Your task to perform on an android device: What's on my calendar today? Image 0: 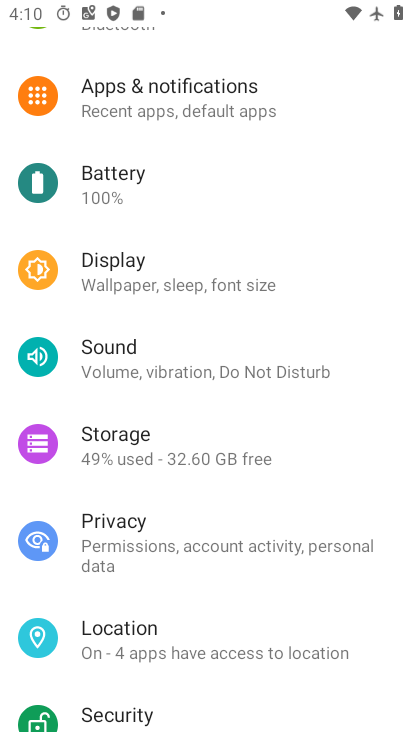
Step 0: press home button
Your task to perform on an android device: What's on my calendar today? Image 1: 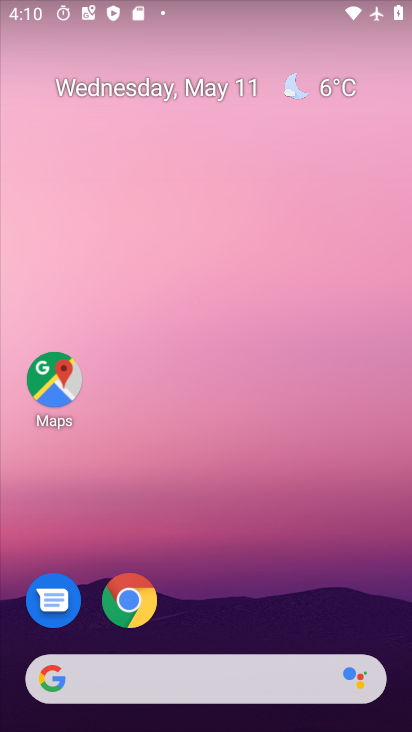
Step 1: drag from (243, 641) to (134, 152)
Your task to perform on an android device: What's on my calendar today? Image 2: 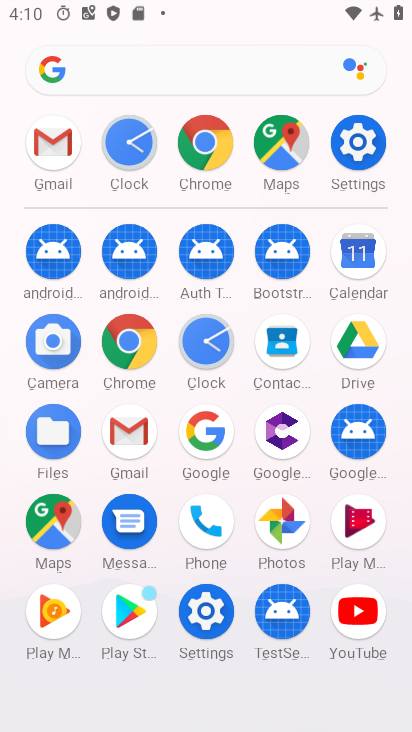
Step 2: click (364, 263)
Your task to perform on an android device: What's on my calendar today? Image 3: 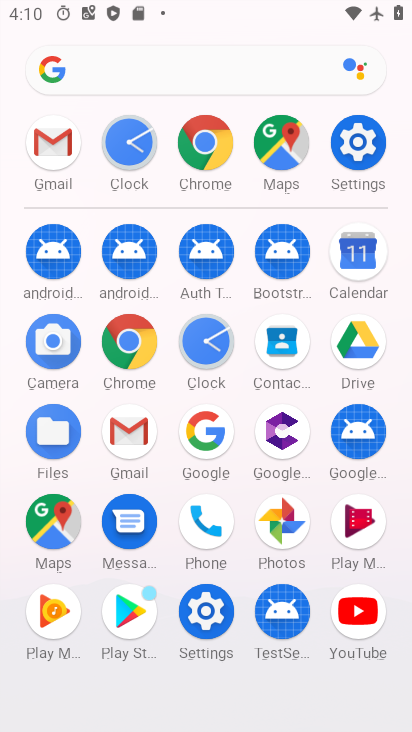
Step 3: click (364, 263)
Your task to perform on an android device: What's on my calendar today? Image 4: 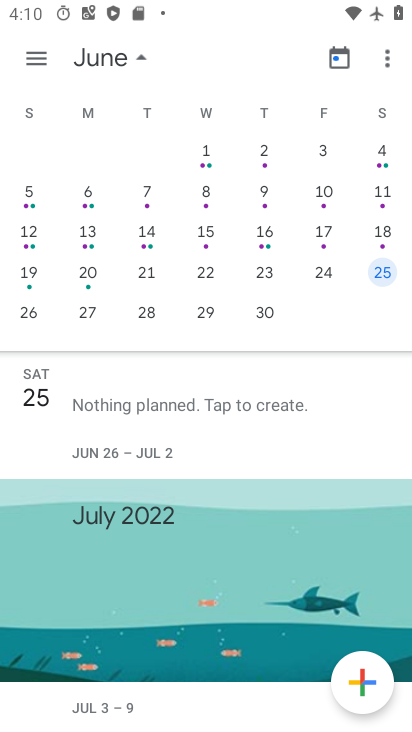
Step 4: task complete